Your task to perform on an android device: Is it going to rain today? Image 0: 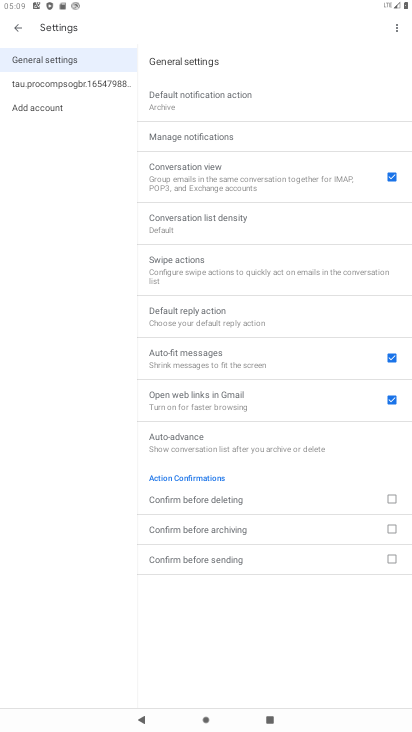
Step 0: press home button
Your task to perform on an android device: Is it going to rain today? Image 1: 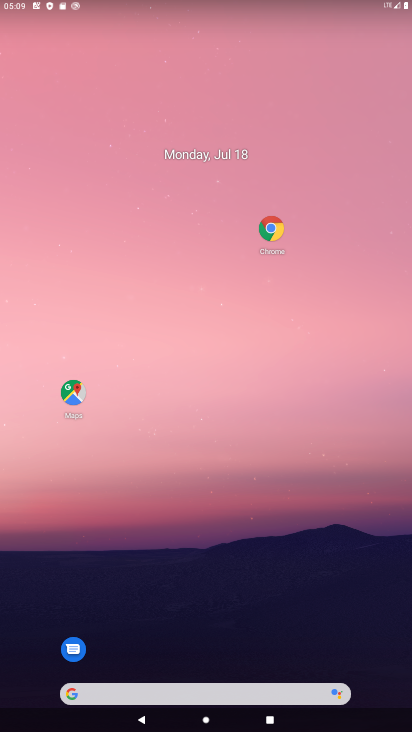
Step 1: click (158, 700)
Your task to perform on an android device: Is it going to rain today? Image 2: 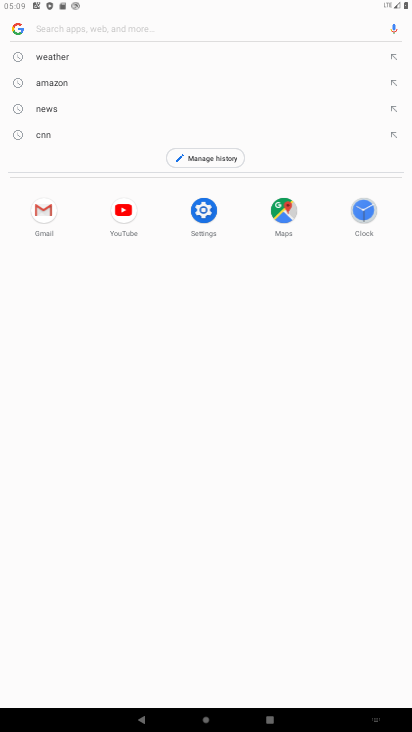
Step 2: click (79, 65)
Your task to perform on an android device: Is it going to rain today? Image 3: 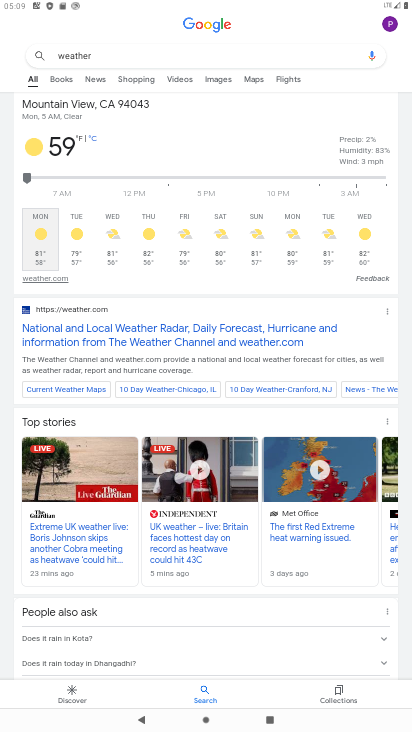
Step 3: task complete